Your task to perform on an android device: toggle sleep mode Image 0: 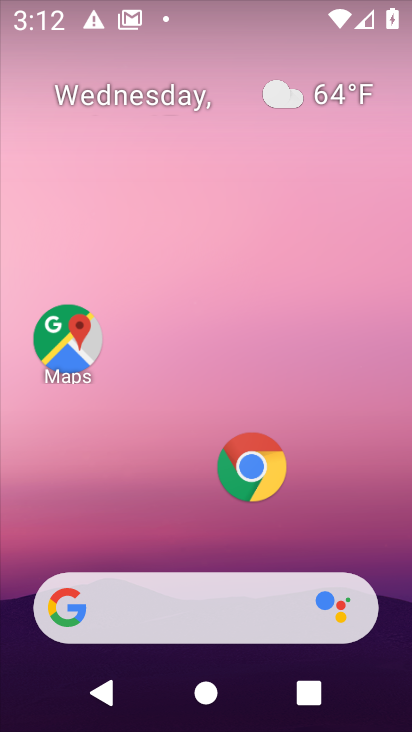
Step 0: drag from (167, 476) to (182, 165)
Your task to perform on an android device: toggle sleep mode Image 1: 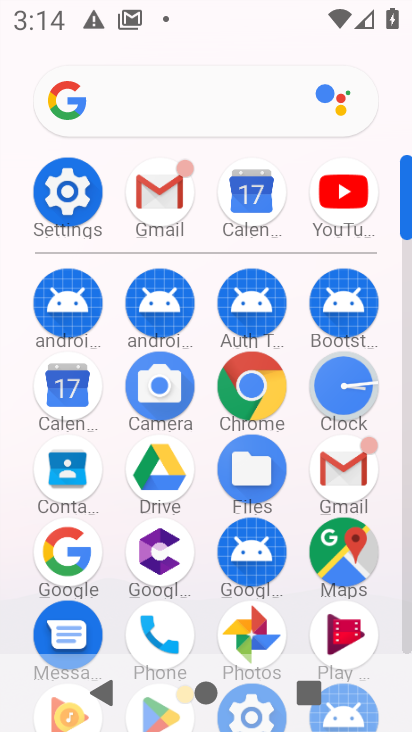
Step 1: task complete